Your task to perform on an android device: Clear the shopping cart on bestbuy.com. Add "usb-c" to the cart on bestbuy.com Image 0: 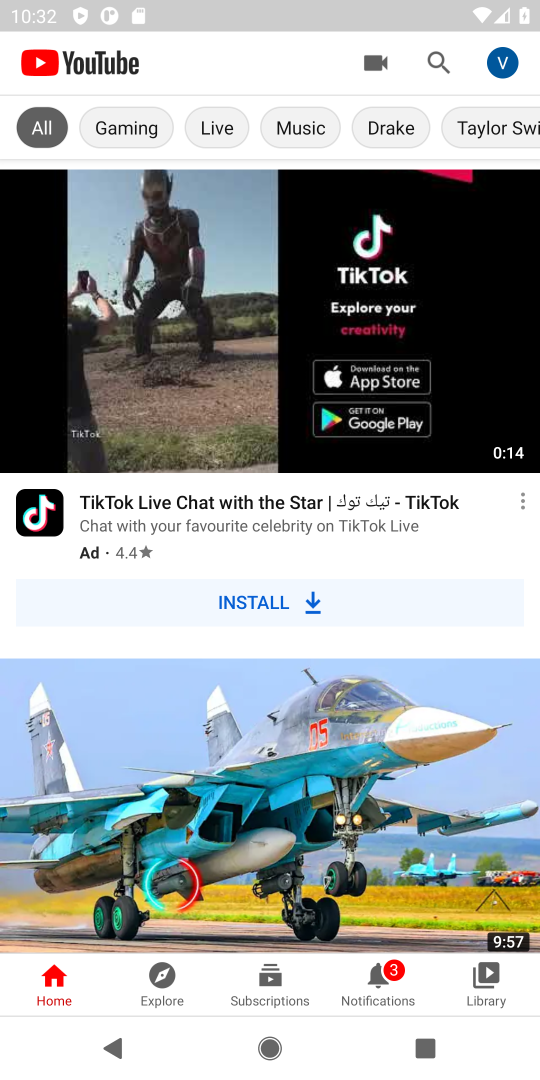
Step 0: press home button
Your task to perform on an android device: Clear the shopping cart on bestbuy.com. Add "usb-c" to the cart on bestbuy.com Image 1: 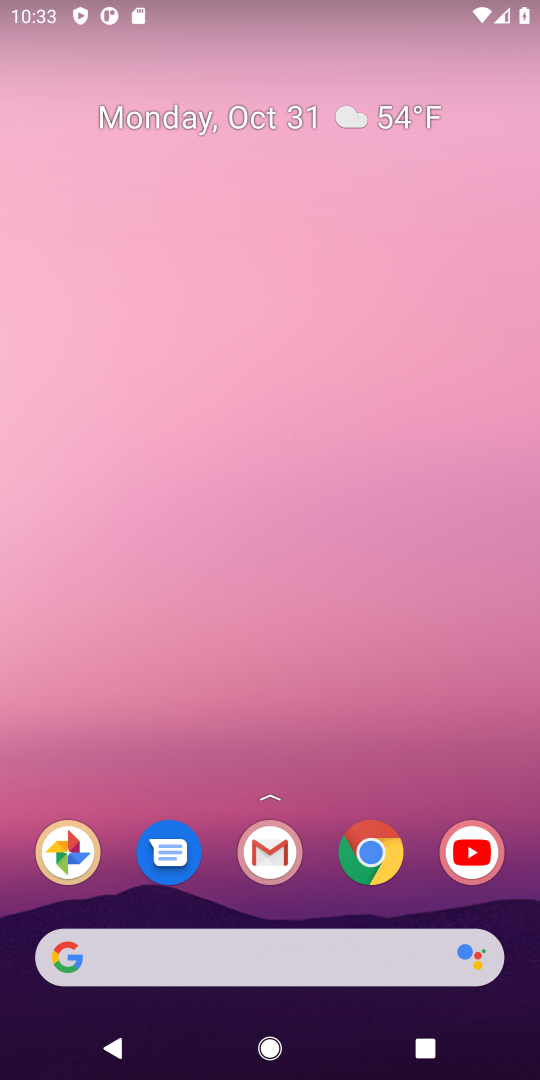
Step 1: click (377, 860)
Your task to perform on an android device: Clear the shopping cart on bestbuy.com. Add "usb-c" to the cart on bestbuy.com Image 2: 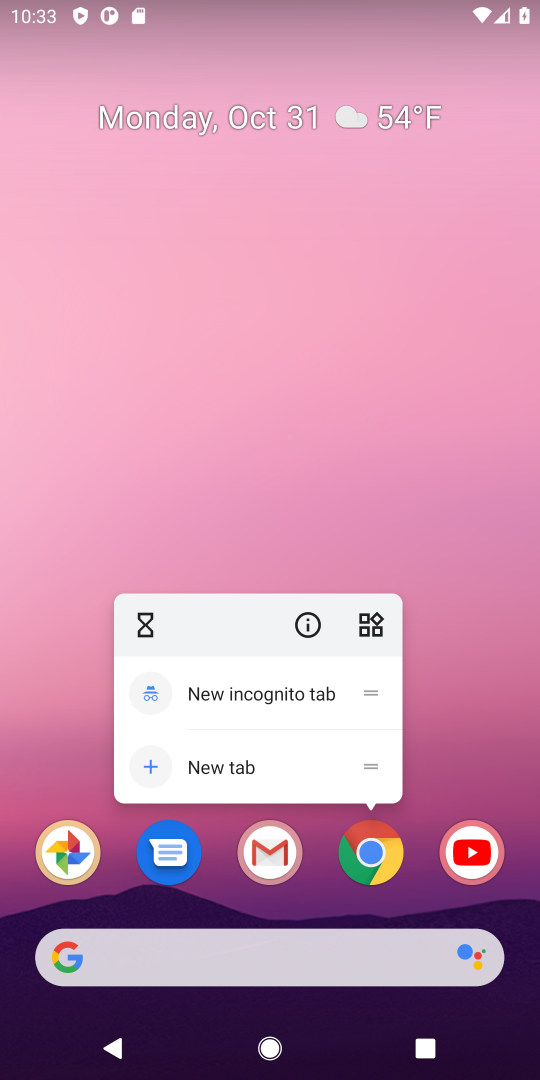
Step 2: click (384, 857)
Your task to perform on an android device: Clear the shopping cart on bestbuy.com. Add "usb-c" to the cart on bestbuy.com Image 3: 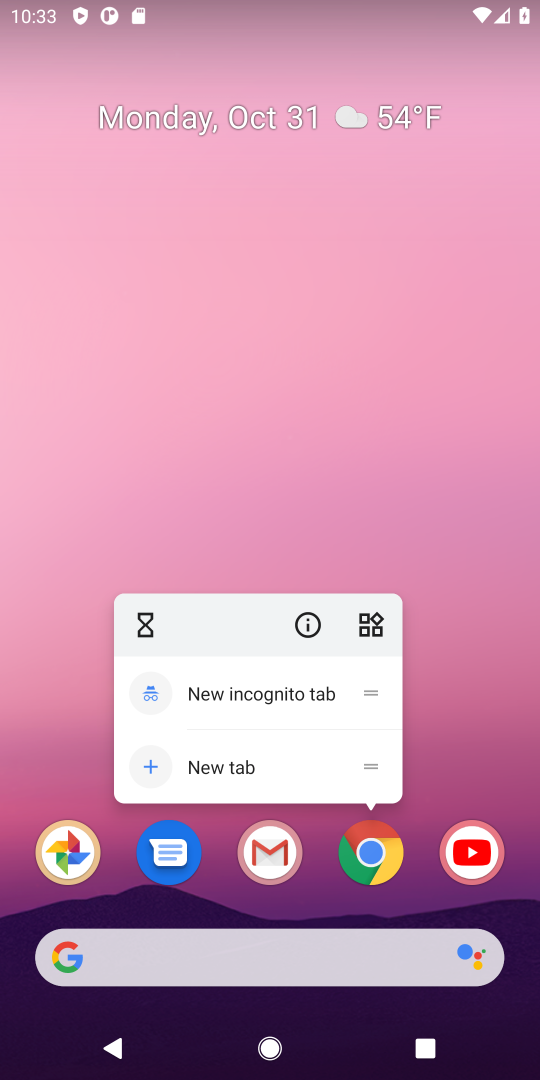
Step 3: click (388, 862)
Your task to perform on an android device: Clear the shopping cart on bestbuy.com. Add "usb-c" to the cart on bestbuy.com Image 4: 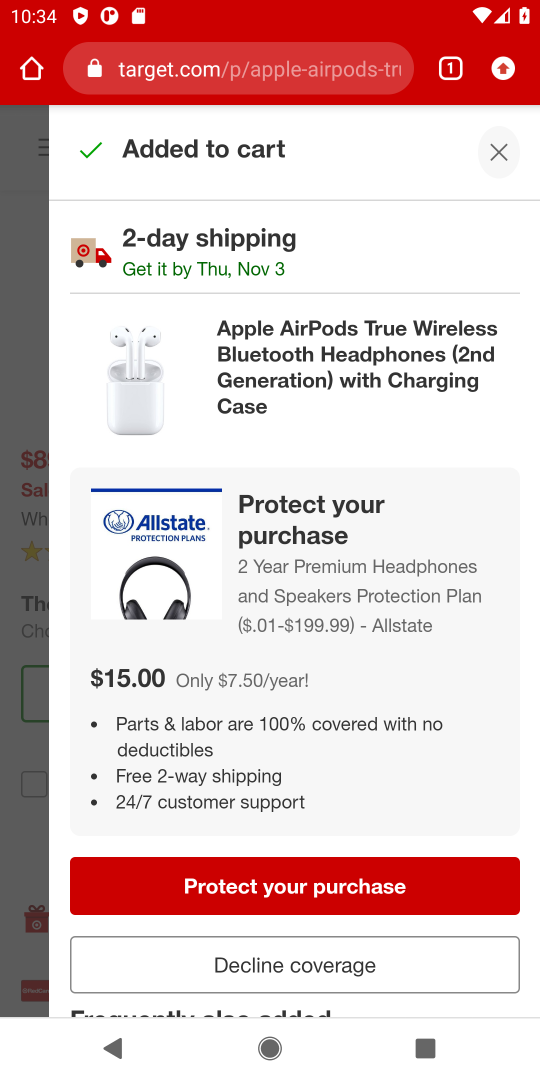
Step 4: click (345, 962)
Your task to perform on an android device: Clear the shopping cart on bestbuy.com. Add "usb-c" to the cart on bestbuy.com Image 5: 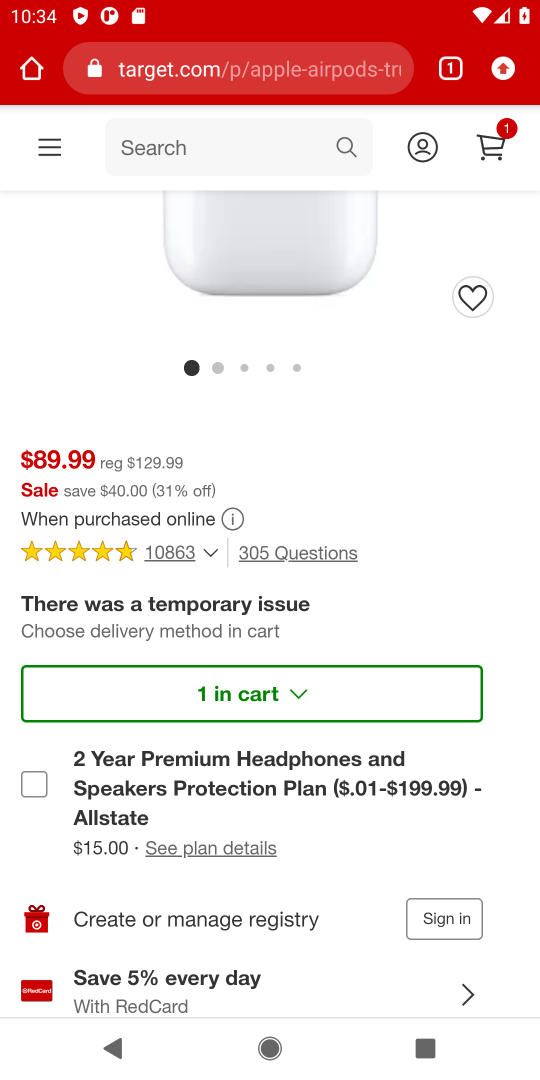
Step 5: click (266, 69)
Your task to perform on an android device: Clear the shopping cart on bestbuy.com. Add "usb-c" to the cart on bestbuy.com Image 6: 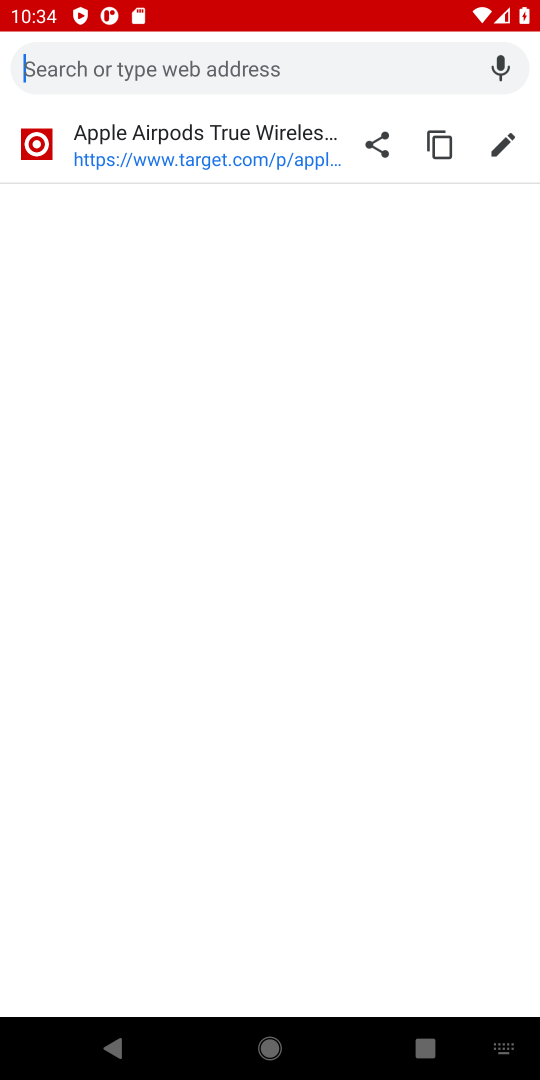
Step 6: type "bestbuy.com"
Your task to perform on an android device: Clear the shopping cart on bestbuy.com. Add "usb-c" to the cart on bestbuy.com Image 7: 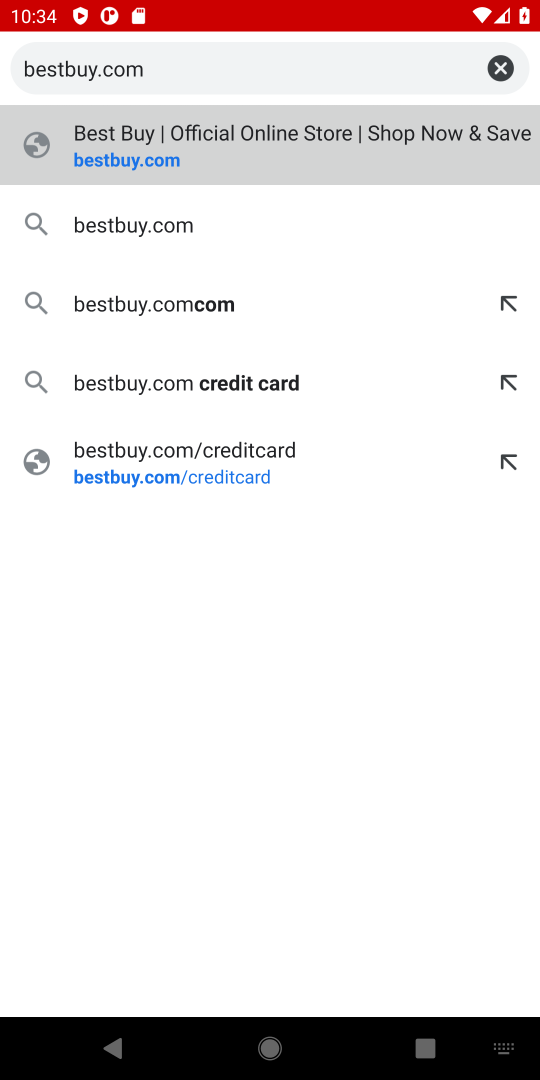
Step 7: type ""
Your task to perform on an android device: Clear the shopping cart on bestbuy.com. Add "usb-c" to the cart on bestbuy.com Image 8: 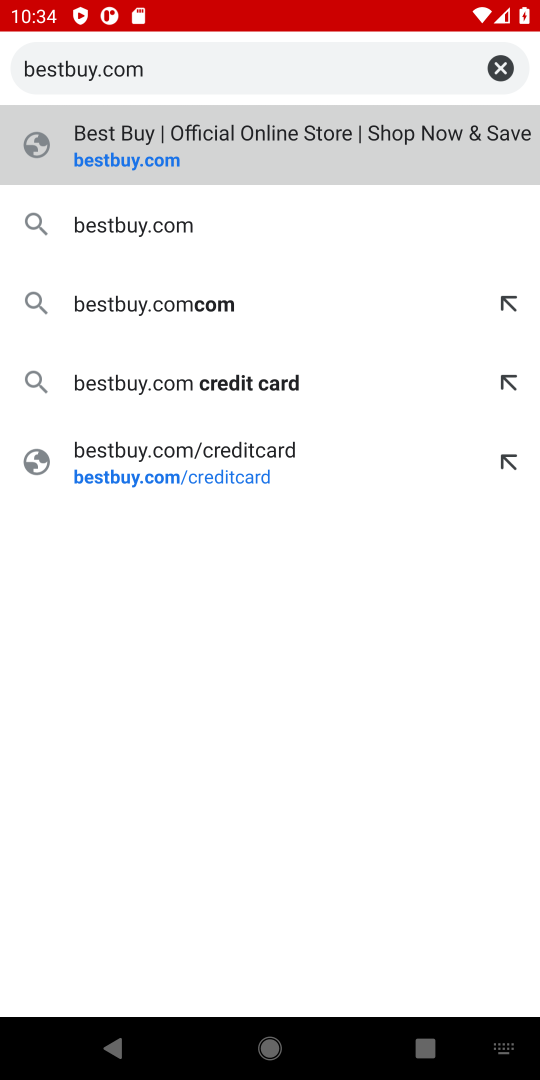
Step 8: press enter
Your task to perform on an android device: Clear the shopping cart on bestbuy.com. Add "usb-c" to the cart on bestbuy.com Image 9: 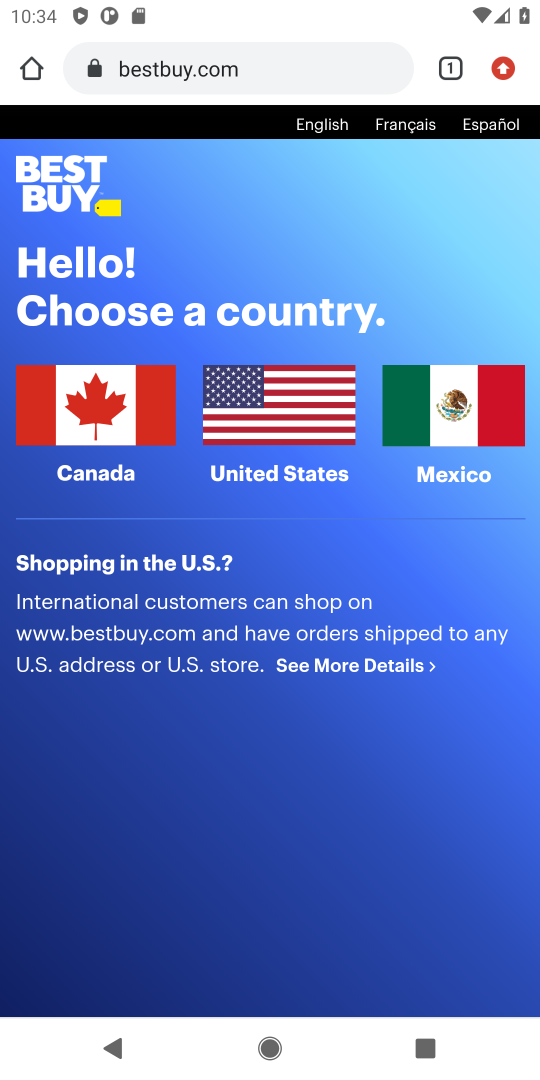
Step 9: click (259, 429)
Your task to perform on an android device: Clear the shopping cart on bestbuy.com. Add "usb-c" to the cart on bestbuy.com Image 10: 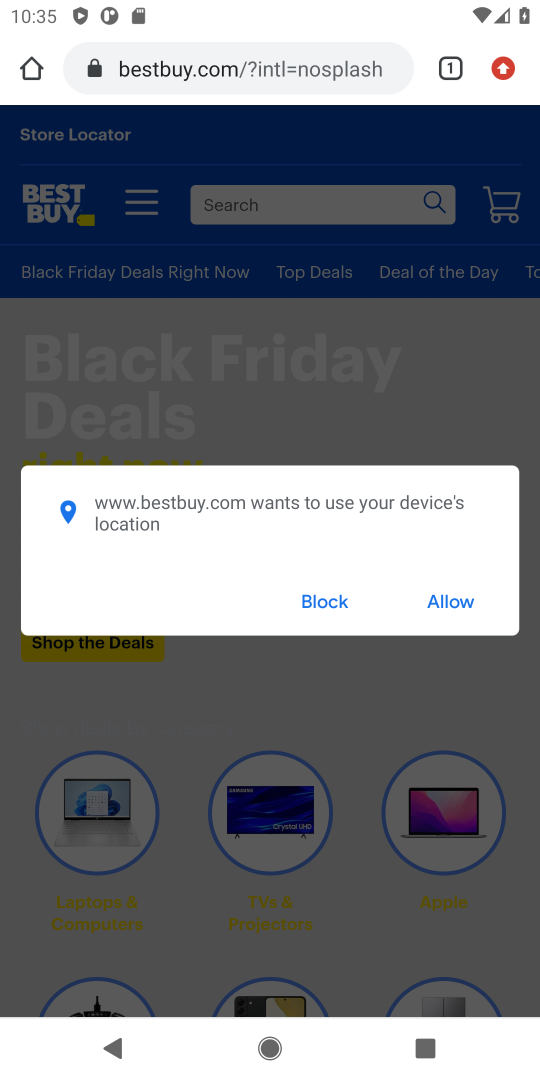
Step 10: click (463, 605)
Your task to perform on an android device: Clear the shopping cart on bestbuy.com. Add "usb-c" to the cart on bestbuy.com Image 11: 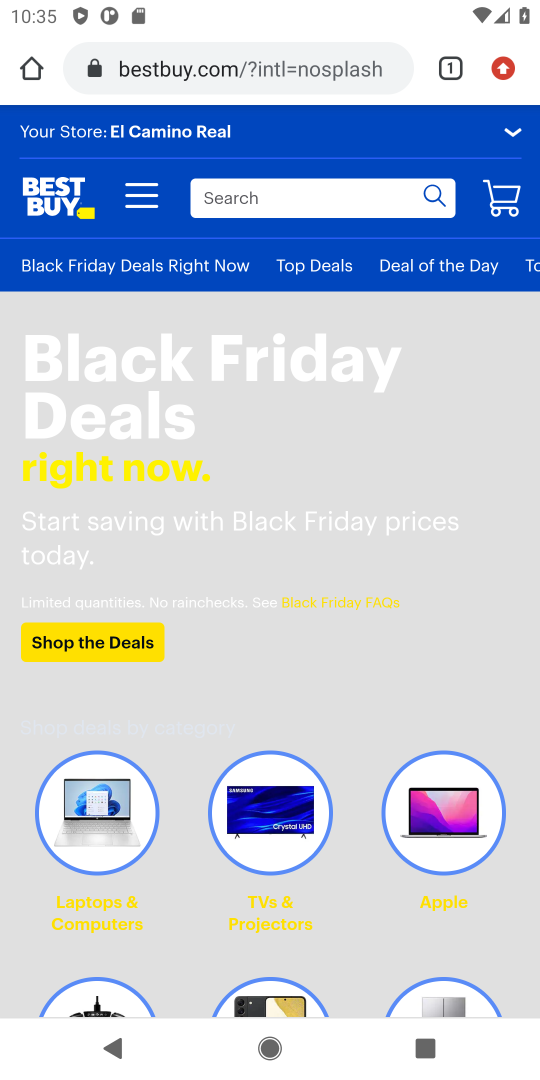
Step 11: click (509, 199)
Your task to perform on an android device: Clear the shopping cart on bestbuy.com. Add "usb-c" to the cart on bestbuy.com Image 12: 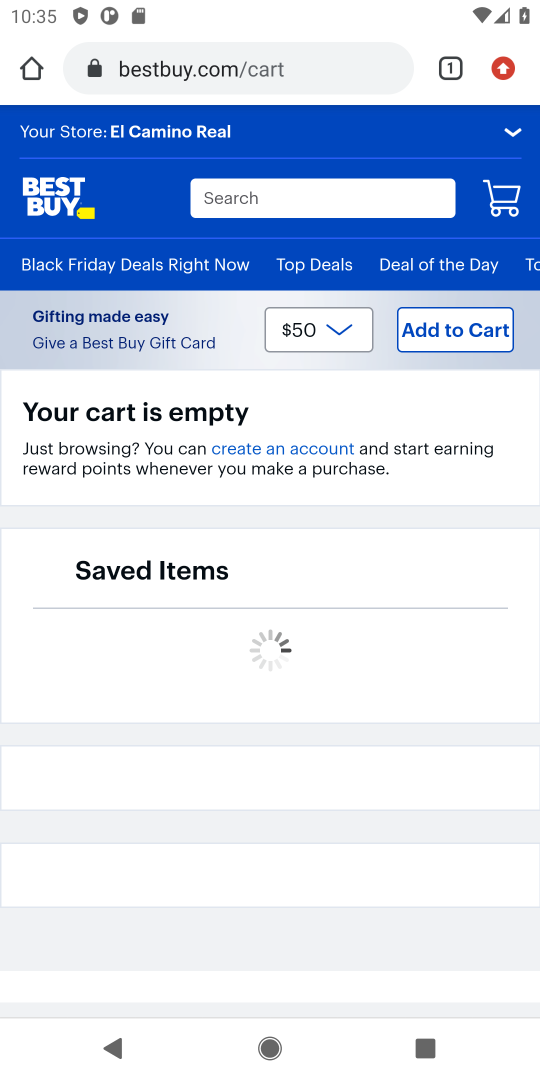
Step 12: click (290, 193)
Your task to perform on an android device: Clear the shopping cart on bestbuy.com. Add "usb-c" to the cart on bestbuy.com Image 13: 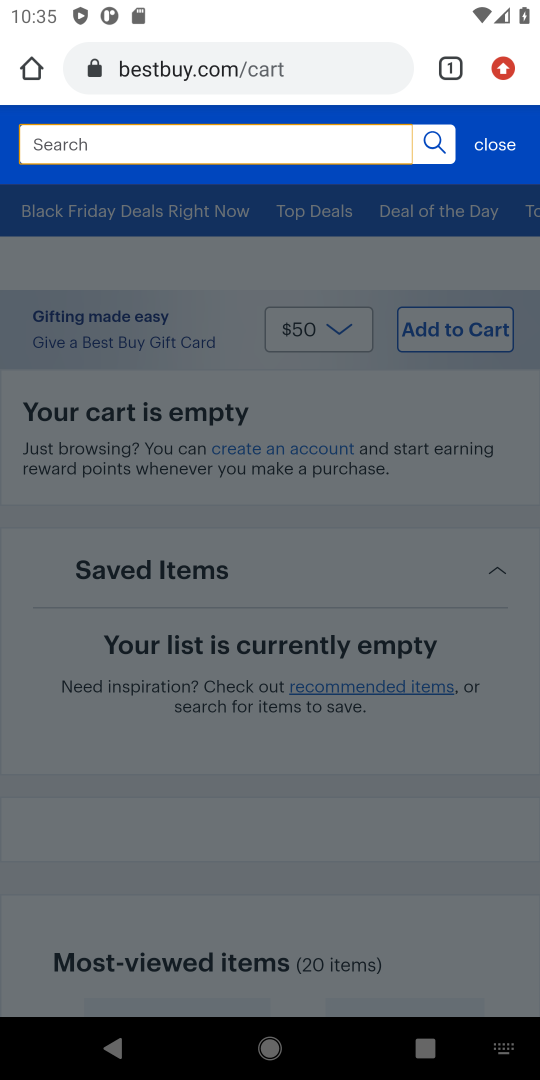
Step 13: type "usb-c"
Your task to perform on an android device: Clear the shopping cart on bestbuy.com. Add "usb-c" to the cart on bestbuy.com Image 14: 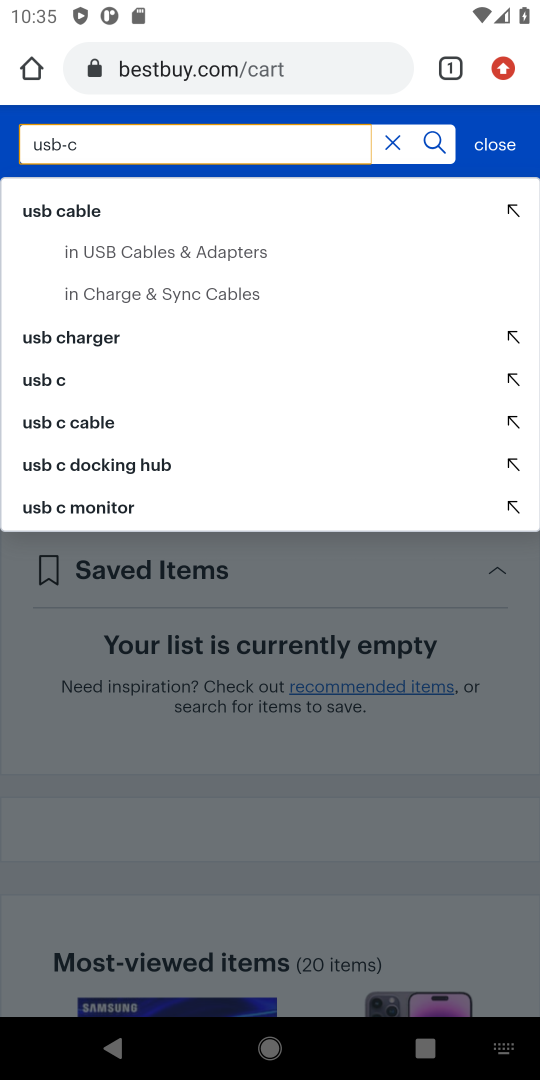
Step 14: press enter
Your task to perform on an android device: Clear the shopping cart on bestbuy.com. Add "usb-c" to the cart on bestbuy.com Image 15: 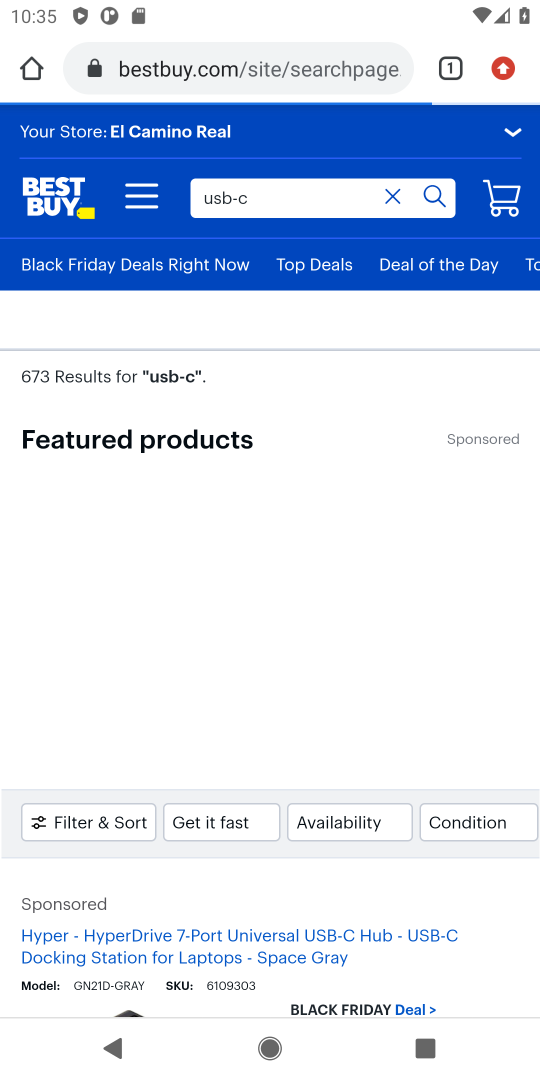
Step 15: drag from (314, 907) to (358, 457)
Your task to perform on an android device: Clear the shopping cart on bestbuy.com. Add "usb-c" to the cart on bestbuy.com Image 16: 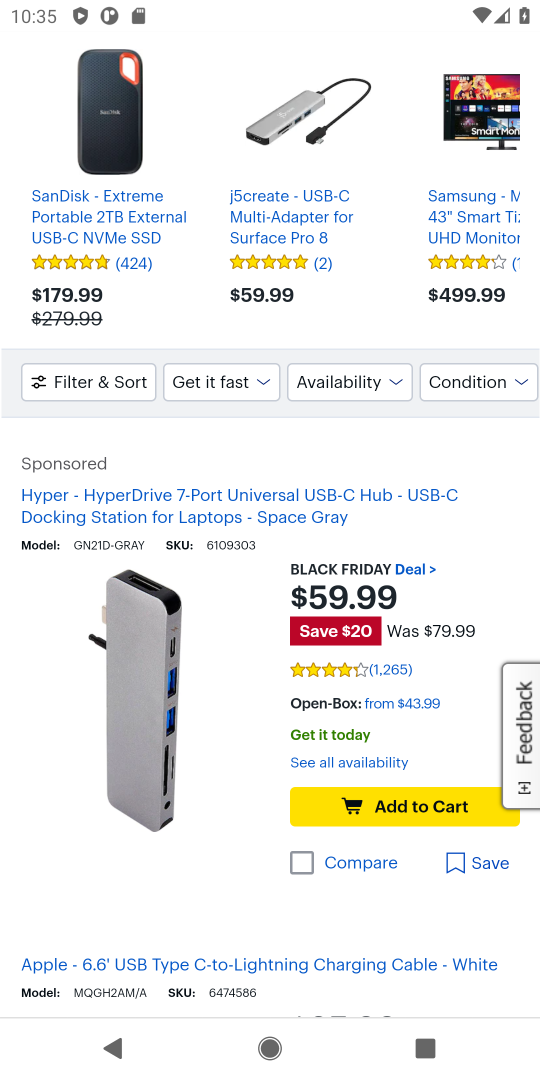
Step 16: drag from (331, 858) to (423, 925)
Your task to perform on an android device: Clear the shopping cart on bestbuy.com. Add "usb-c" to the cart on bestbuy.com Image 17: 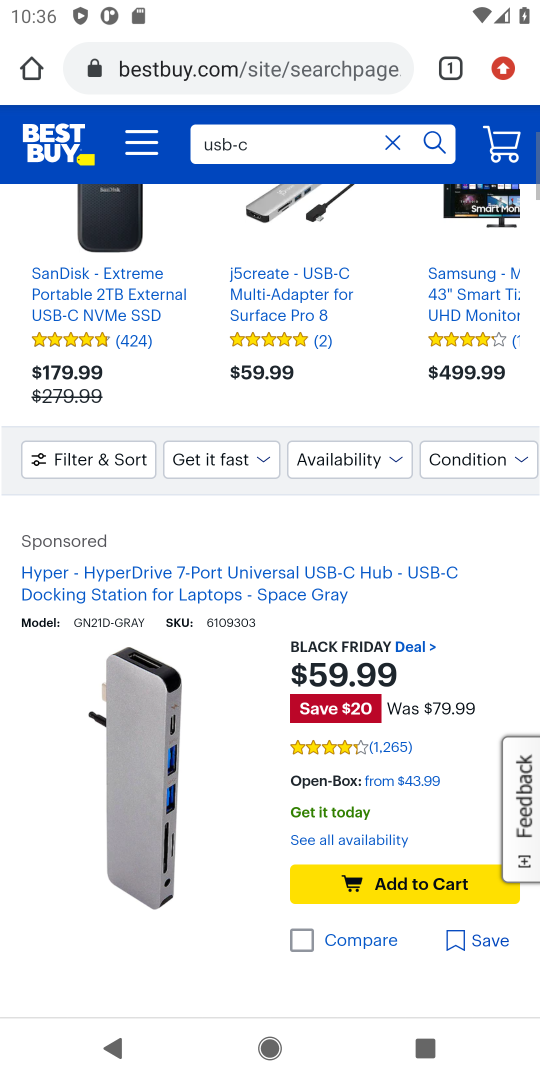
Step 17: drag from (419, 564) to (429, 851)
Your task to perform on an android device: Clear the shopping cart on bestbuy.com. Add "usb-c" to the cart on bestbuy.com Image 18: 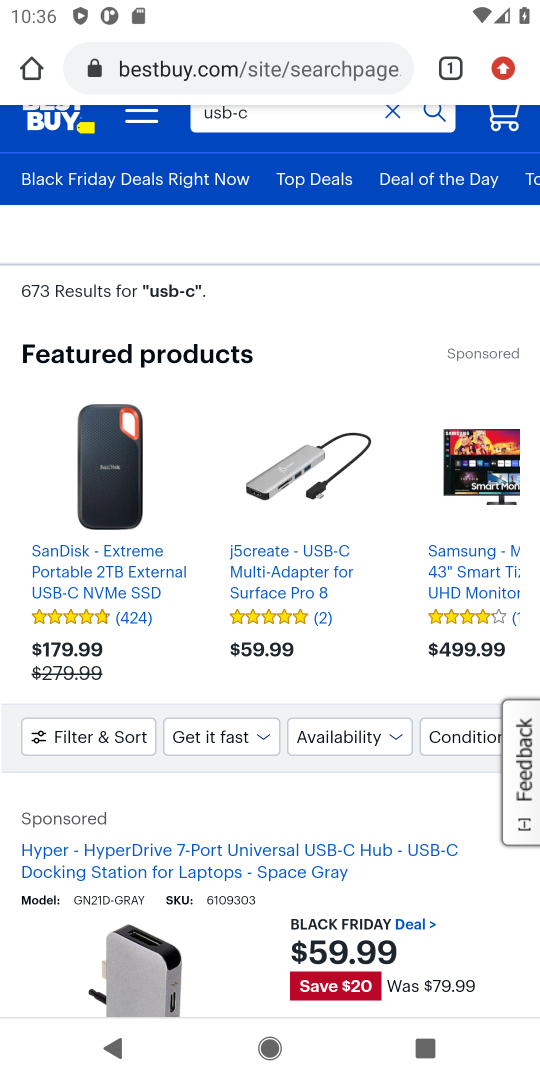
Step 18: drag from (389, 555) to (423, 791)
Your task to perform on an android device: Clear the shopping cart on bestbuy.com. Add "usb-c" to the cart on bestbuy.com Image 19: 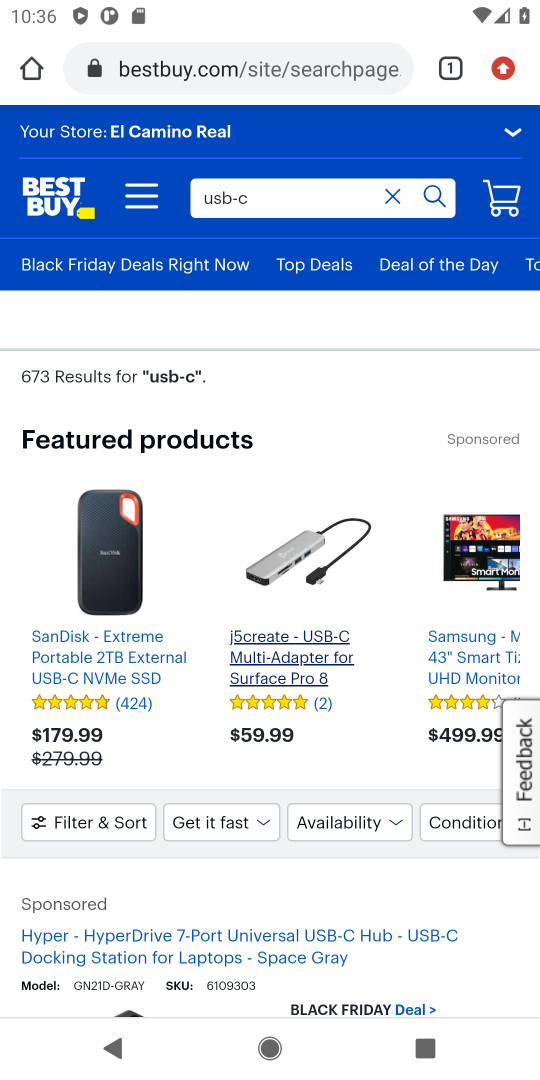
Step 19: drag from (301, 837) to (366, 801)
Your task to perform on an android device: Clear the shopping cart on bestbuy.com. Add "usb-c" to the cart on bestbuy.com Image 20: 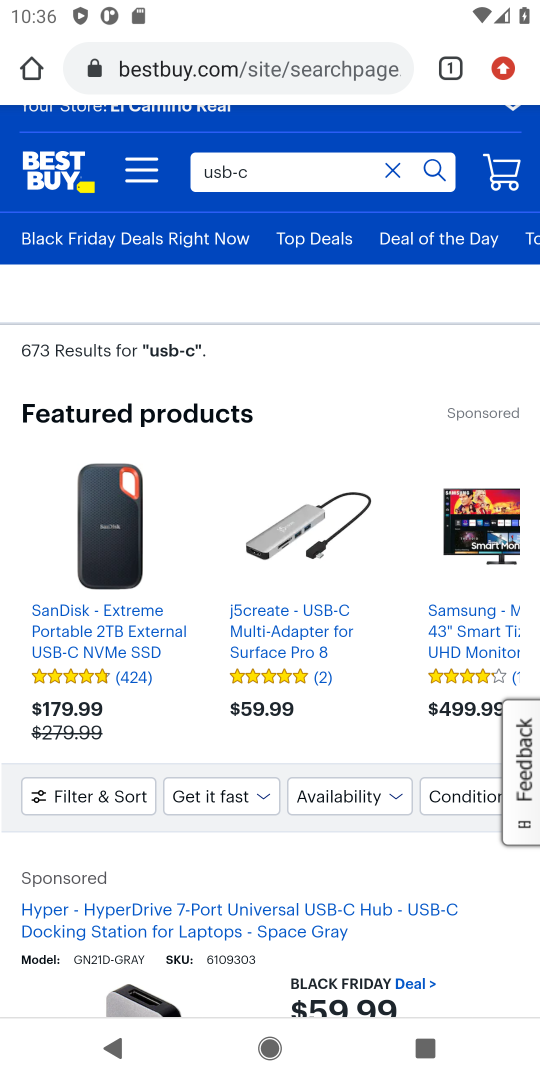
Step 20: drag from (302, 879) to (303, 574)
Your task to perform on an android device: Clear the shopping cart on bestbuy.com. Add "usb-c" to the cart on bestbuy.com Image 21: 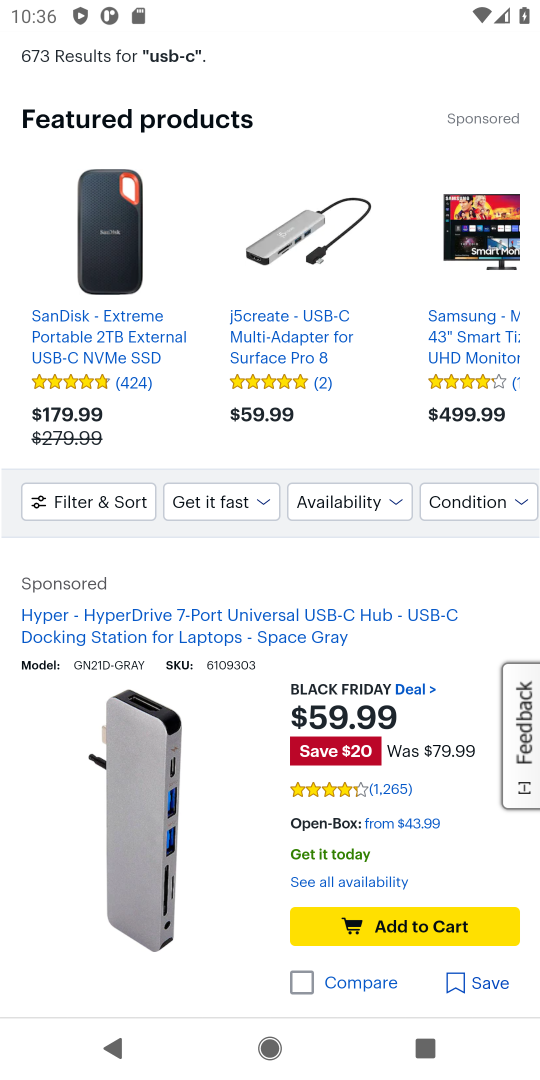
Step 21: click (235, 626)
Your task to perform on an android device: Clear the shopping cart on bestbuy.com. Add "usb-c" to the cart on bestbuy.com Image 22: 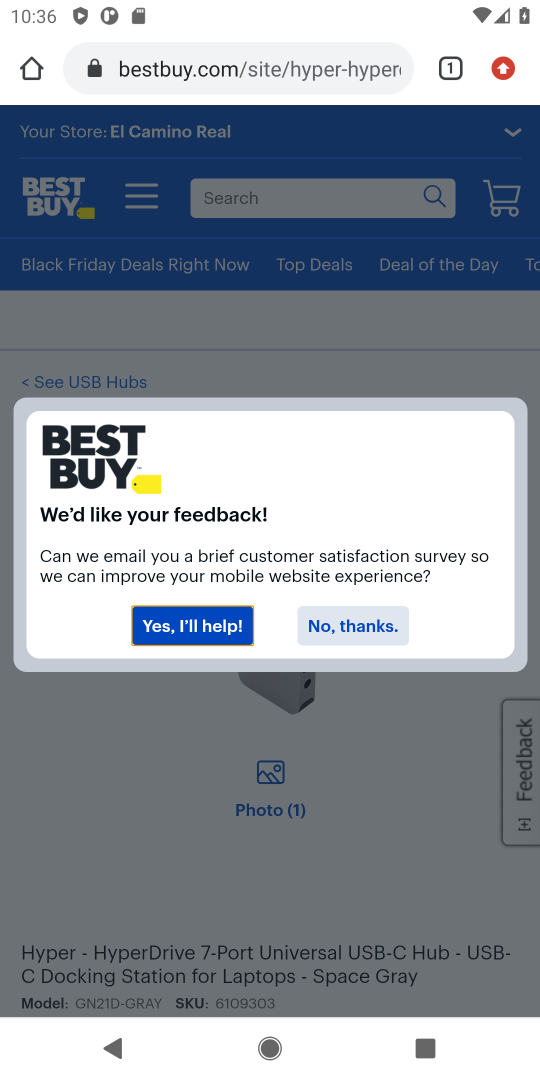
Step 22: click (308, 626)
Your task to perform on an android device: Clear the shopping cart on bestbuy.com. Add "usb-c" to the cart on bestbuy.com Image 23: 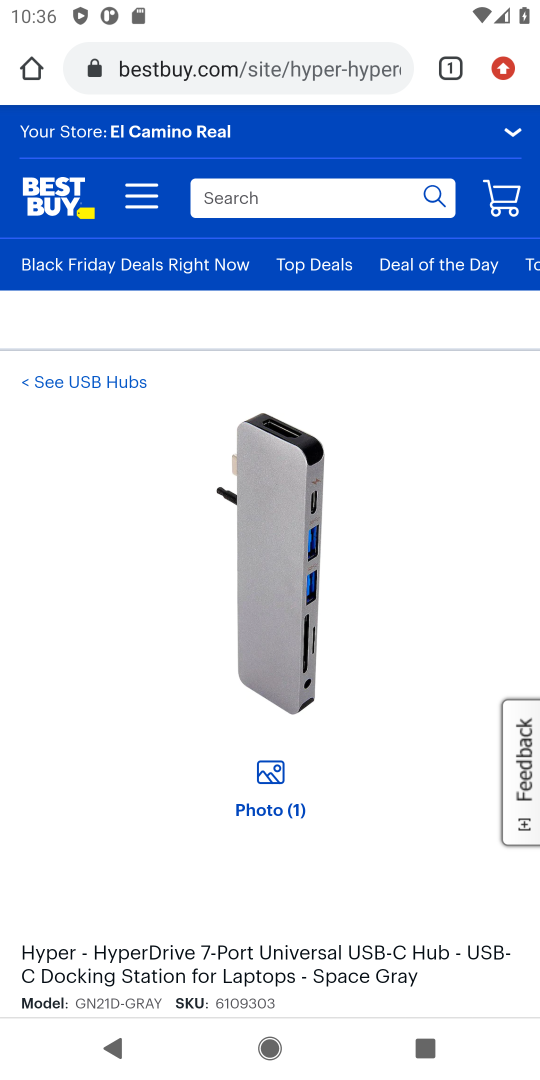
Step 23: drag from (335, 930) to (452, 65)
Your task to perform on an android device: Clear the shopping cart on bestbuy.com. Add "usb-c" to the cart on bestbuy.com Image 24: 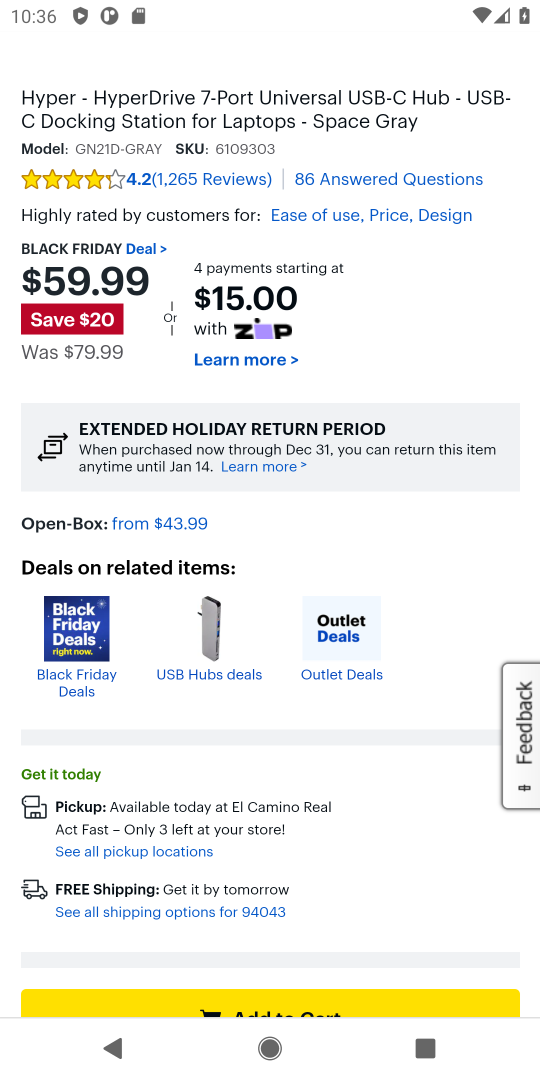
Step 24: drag from (364, 830) to (352, 532)
Your task to perform on an android device: Clear the shopping cart on bestbuy.com. Add "usb-c" to the cart on bestbuy.com Image 25: 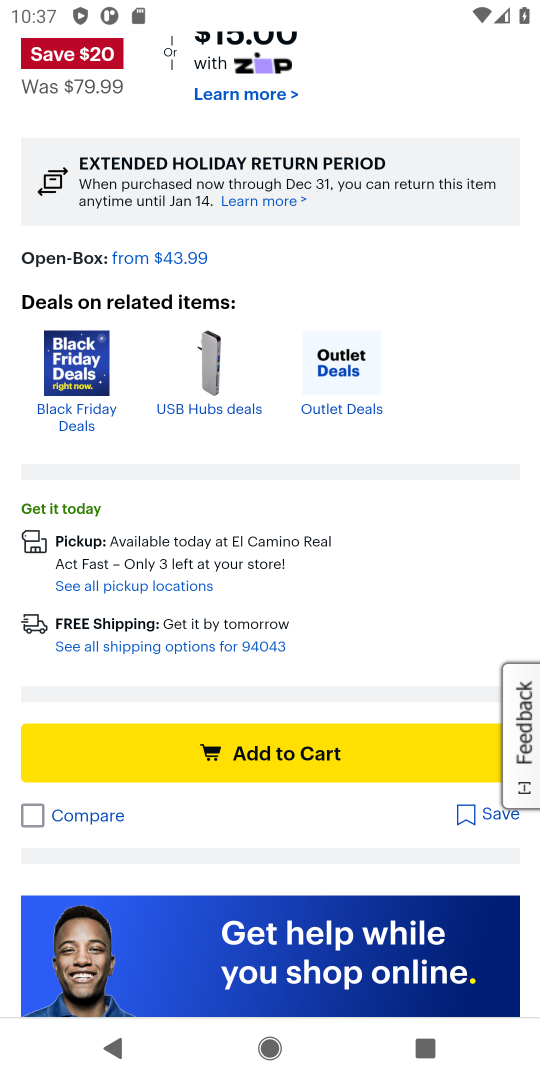
Step 25: click (328, 837)
Your task to perform on an android device: Clear the shopping cart on bestbuy.com. Add "usb-c" to the cart on bestbuy.com Image 26: 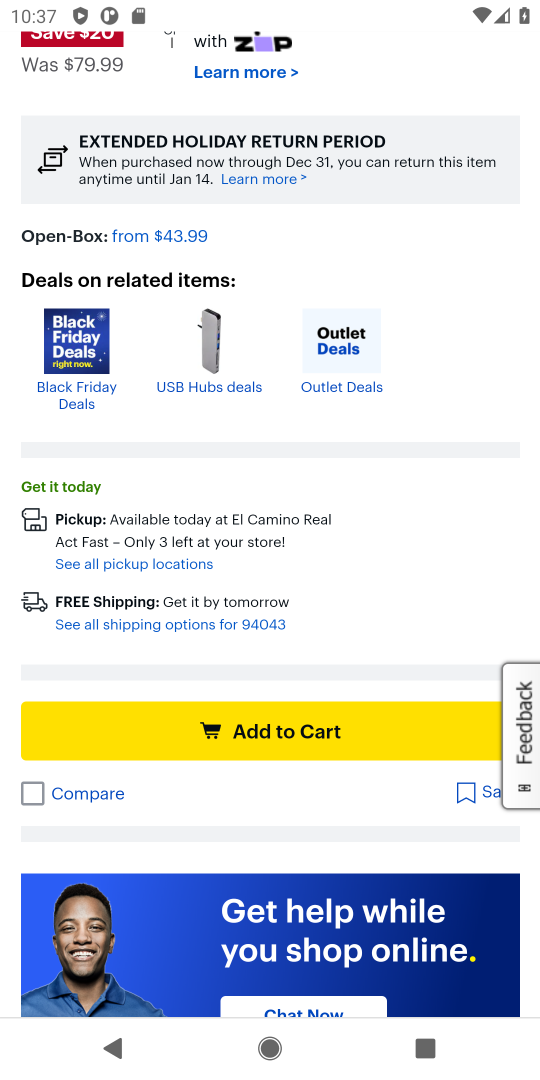
Step 26: click (309, 735)
Your task to perform on an android device: Clear the shopping cart on bestbuy.com. Add "usb-c" to the cart on bestbuy.com Image 27: 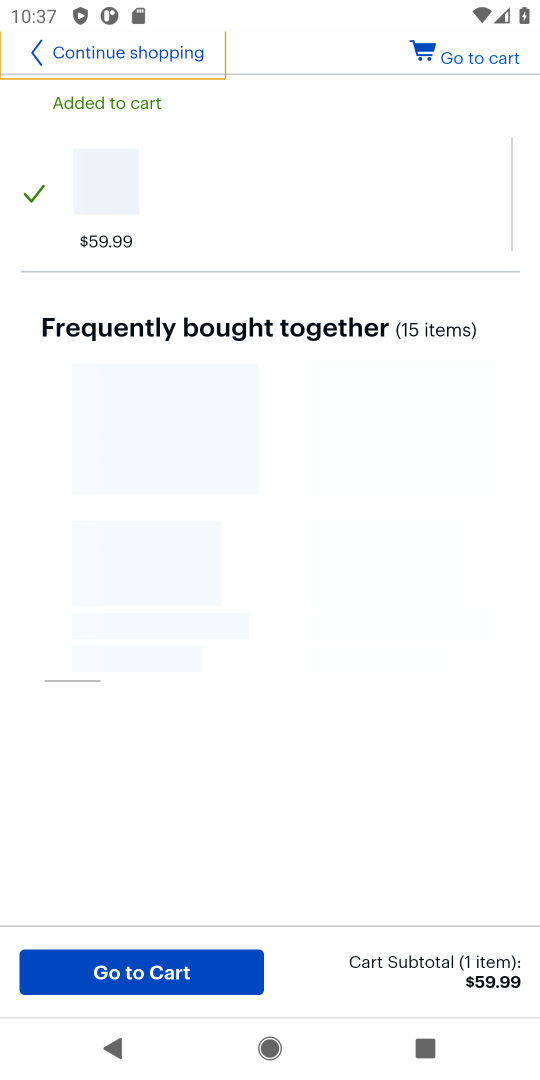
Step 27: click (183, 973)
Your task to perform on an android device: Clear the shopping cart on bestbuy.com. Add "usb-c" to the cart on bestbuy.com Image 28: 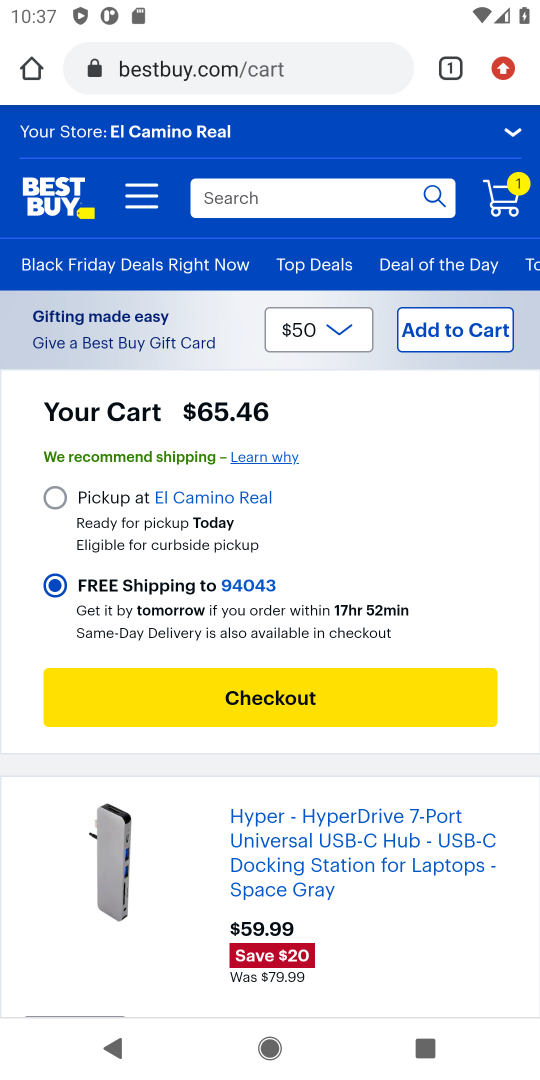
Step 28: task complete